Your task to perform on an android device: Is it going to rain this weekend? Image 0: 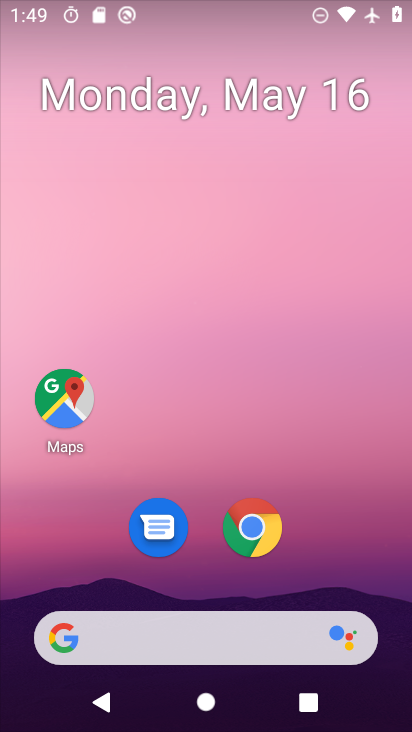
Step 0: press home button
Your task to perform on an android device: Is it going to rain this weekend? Image 1: 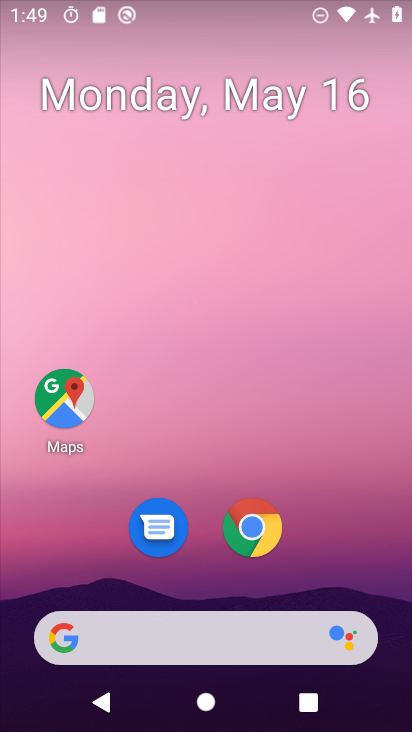
Step 1: click (70, 636)
Your task to perform on an android device: Is it going to rain this weekend? Image 2: 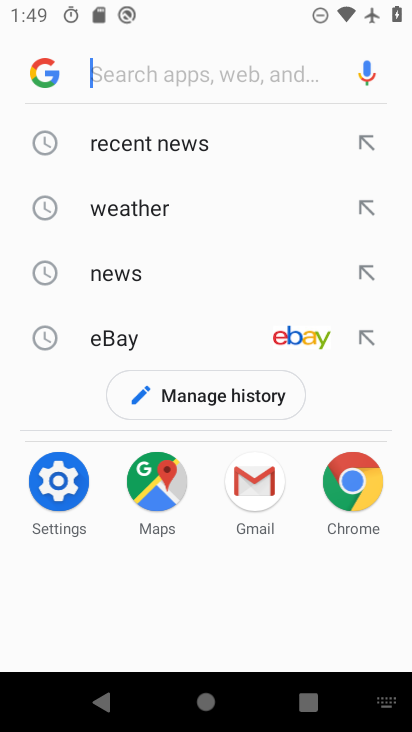
Step 2: click (152, 209)
Your task to perform on an android device: Is it going to rain this weekend? Image 3: 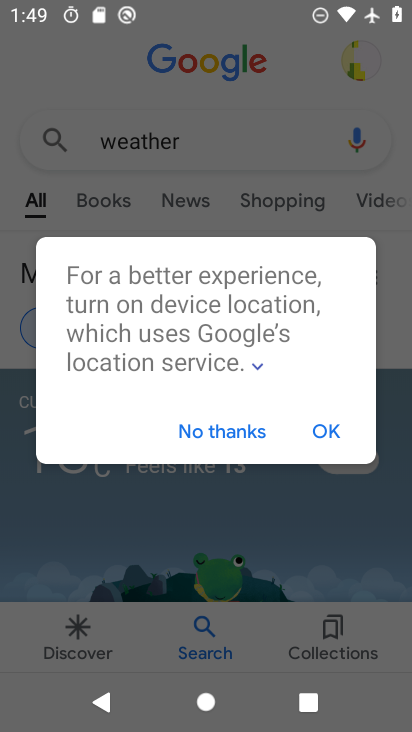
Step 3: click (325, 427)
Your task to perform on an android device: Is it going to rain this weekend? Image 4: 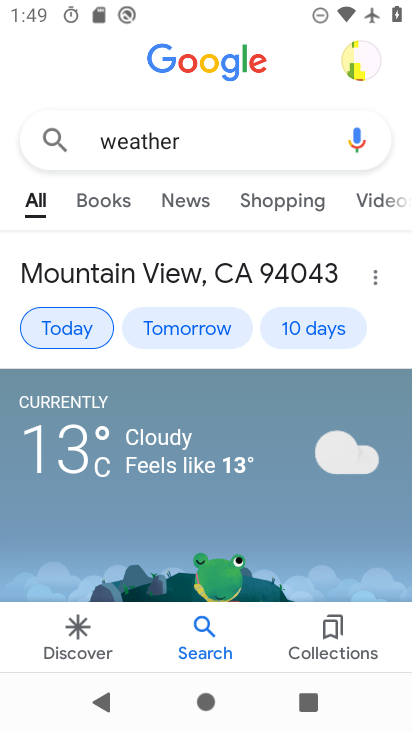
Step 4: click (305, 322)
Your task to perform on an android device: Is it going to rain this weekend? Image 5: 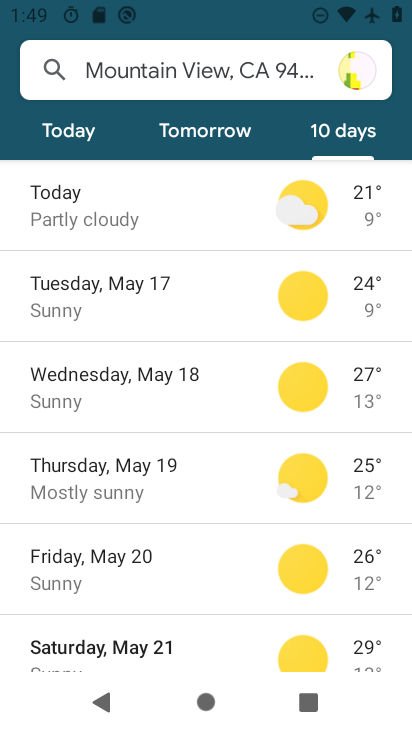
Step 5: task complete